Your task to perform on an android device: open chrome and create a bookmark for the current page Image 0: 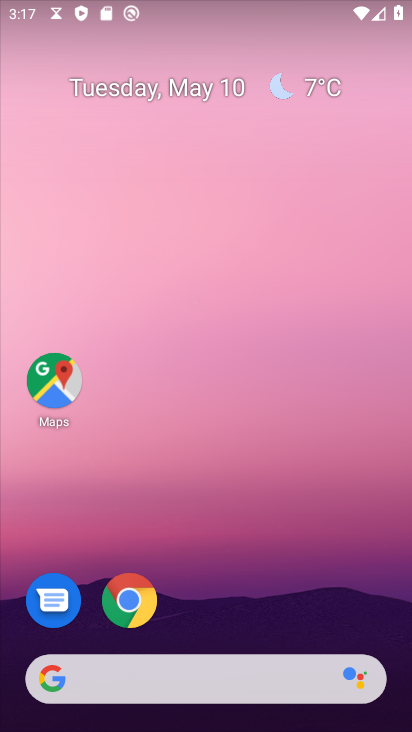
Step 0: click (158, 609)
Your task to perform on an android device: open chrome and create a bookmark for the current page Image 1: 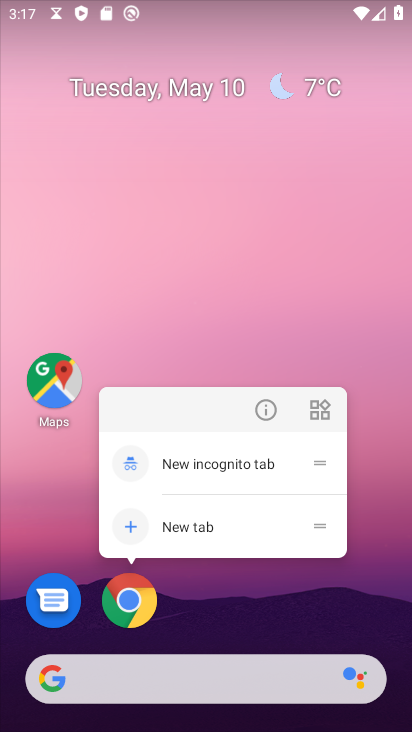
Step 1: click (126, 622)
Your task to perform on an android device: open chrome and create a bookmark for the current page Image 2: 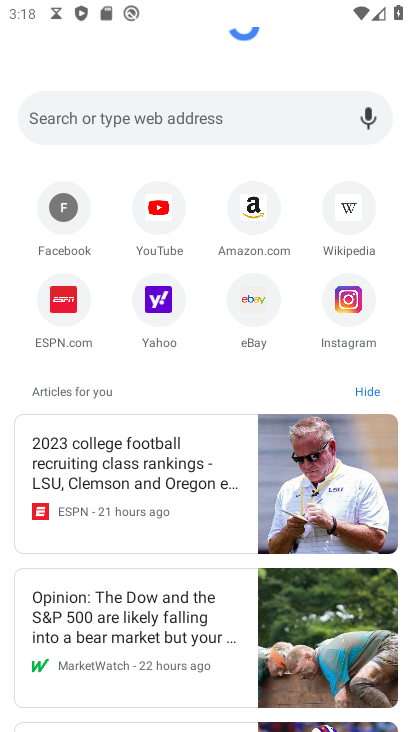
Step 2: drag from (265, 203) to (267, 594)
Your task to perform on an android device: open chrome and create a bookmark for the current page Image 3: 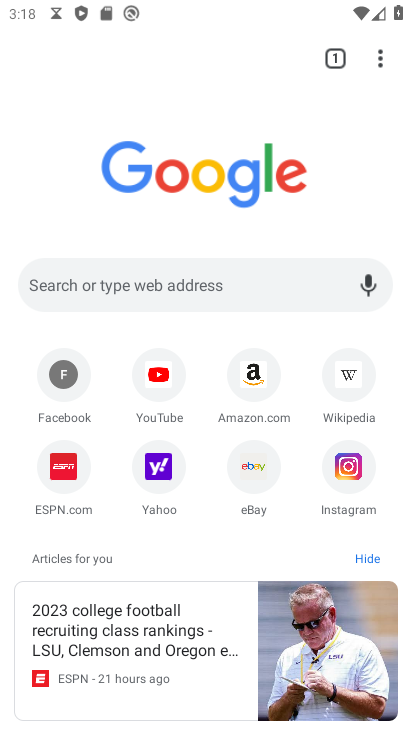
Step 3: click (379, 47)
Your task to perform on an android device: open chrome and create a bookmark for the current page Image 4: 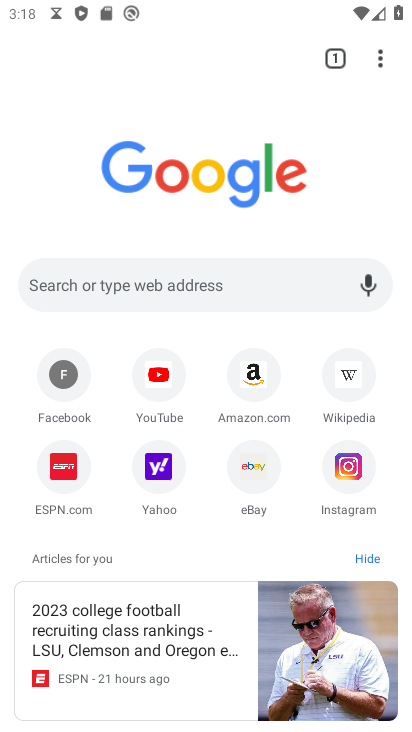
Step 4: click (383, 51)
Your task to perform on an android device: open chrome and create a bookmark for the current page Image 5: 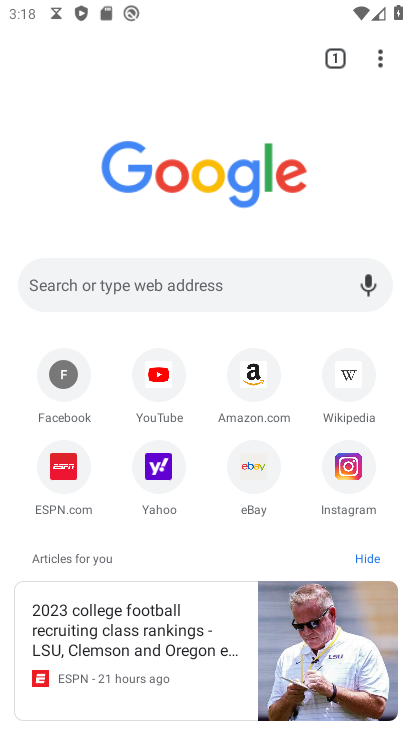
Step 5: task complete